Your task to perform on an android device: Search for vegetarian restaurants on Maps Image 0: 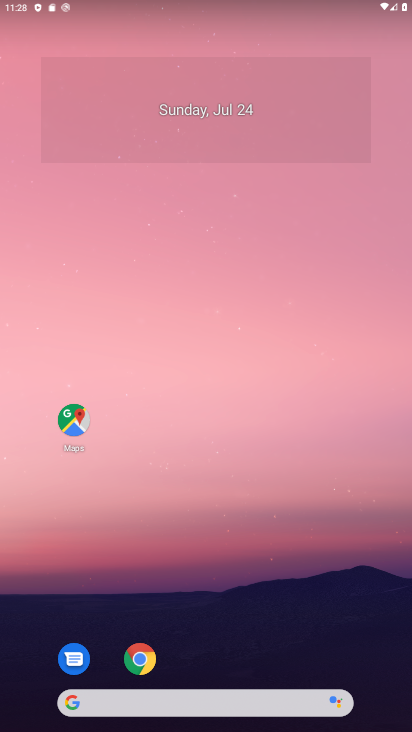
Step 0: click (71, 439)
Your task to perform on an android device: Search for vegetarian restaurants on Maps Image 1: 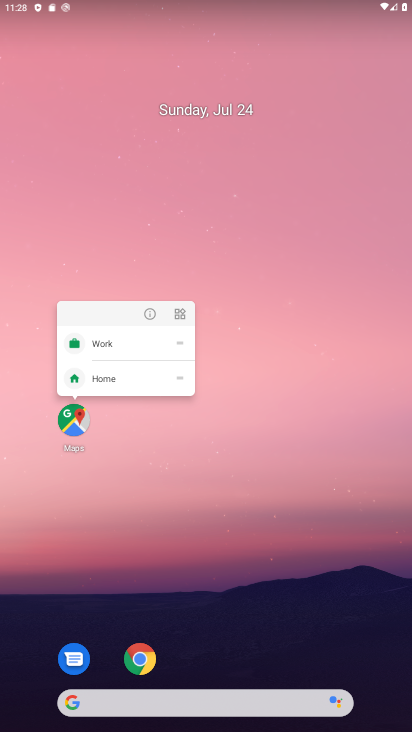
Step 1: click (67, 415)
Your task to perform on an android device: Search for vegetarian restaurants on Maps Image 2: 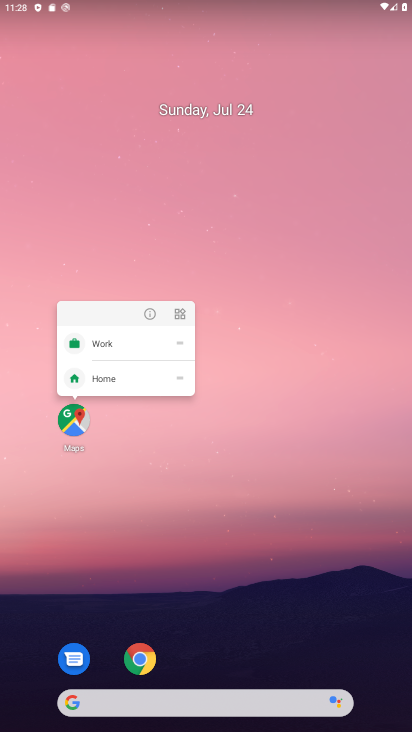
Step 2: click (64, 424)
Your task to perform on an android device: Search for vegetarian restaurants on Maps Image 3: 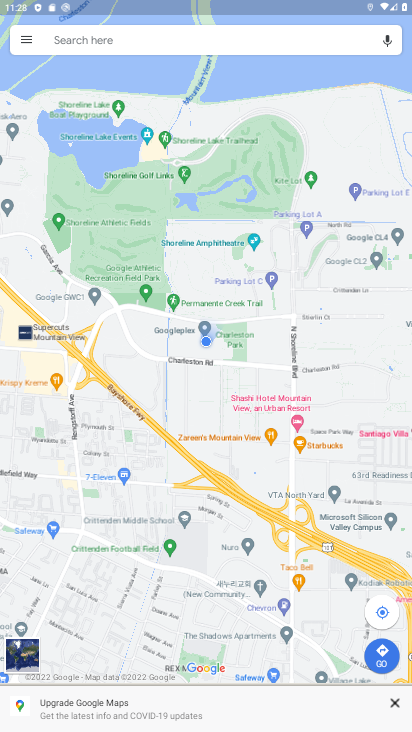
Step 3: click (78, 39)
Your task to perform on an android device: Search for vegetarian restaurants on Maps Image 4: 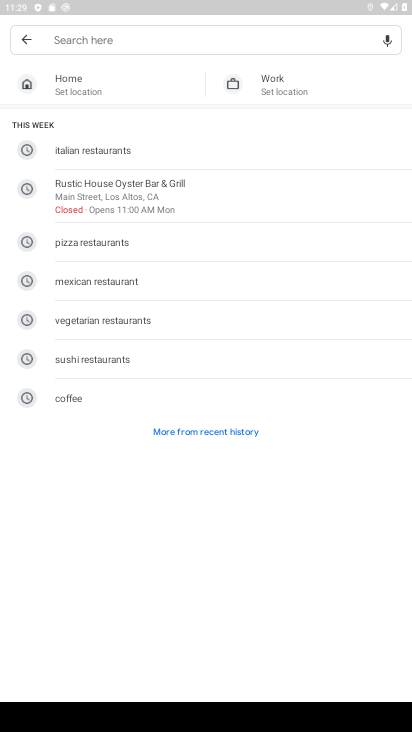
Step 4: click (88, 323)
Your task to perform on an android device: Search for vegetarian restaurants on Maps Image 5: 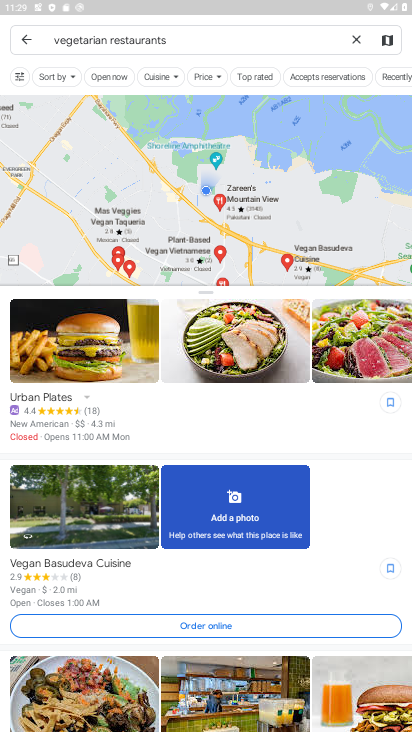
Step 5: task complete